Your task to perform on an android device: What's on my calendar today? Image 0: 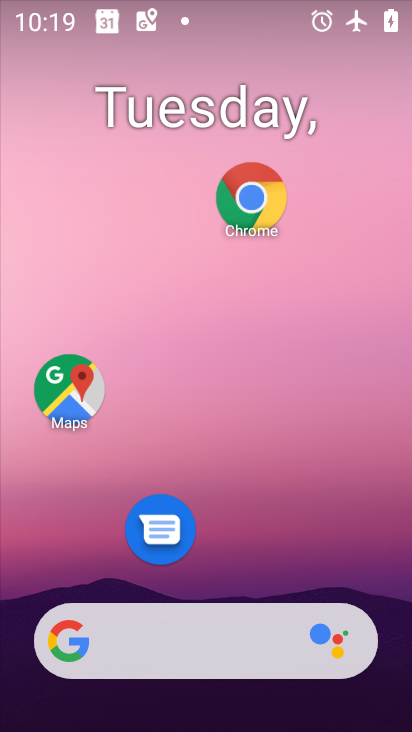
Step 0: drag from (304, 539) to (347, 42)
Your task to perform on an android device: What's on my calendar today? Image 1: 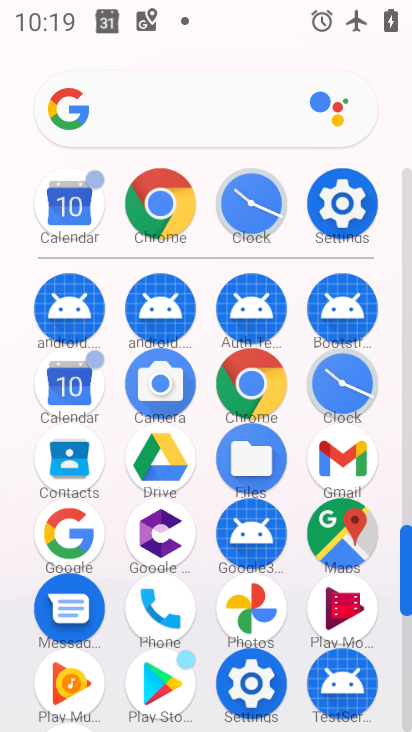
Step 1: click (345, 194)
Your task to perform on an android device: What's on my calendar today? Image 2: 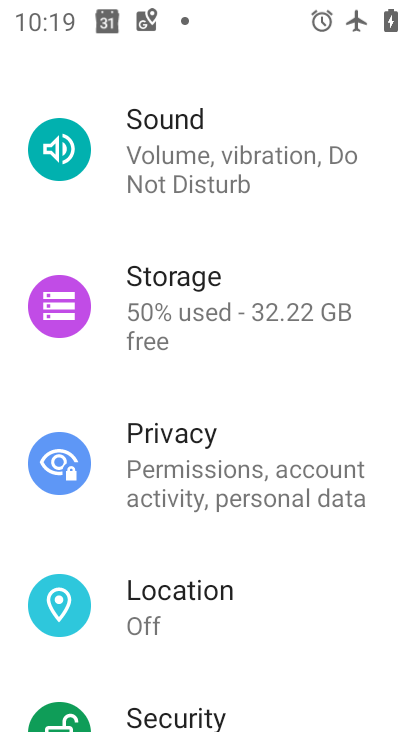
Step 2: press home button
Your task to perform on an android device: What's on my calendar today? Image 3: 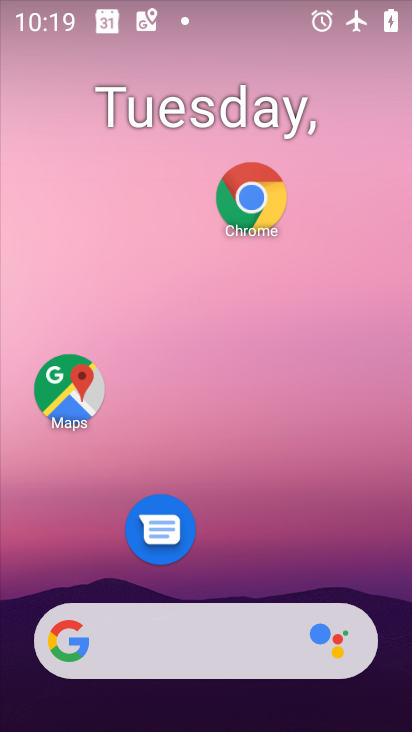
Step 3: drag from (301, 554) to (309, 101)
Your task to perform on an android device: What's on my calendar today? Image 4: 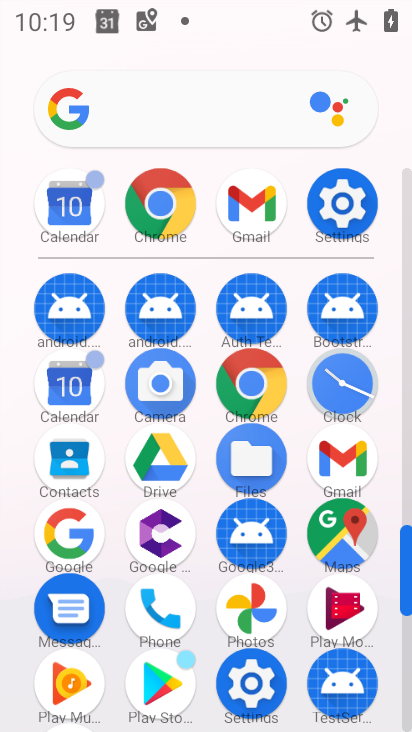
Step 4: click (81, 238)
Your task to perform on an android device: What's on my calendar today? Image 5: 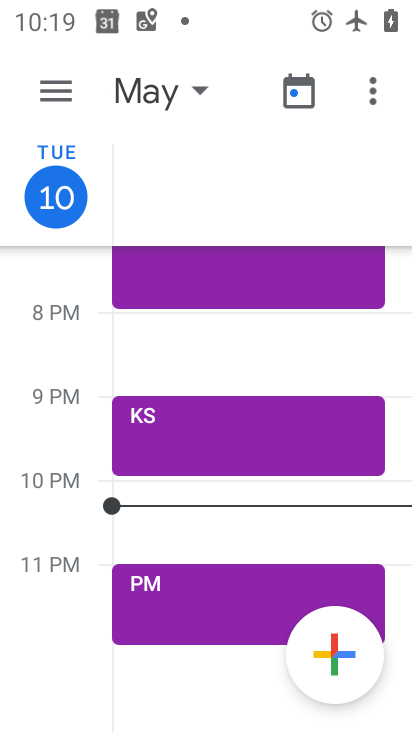
Step 5: task complete